Your task to perform on an android device: visit the assistant section in the google photos Image 0: 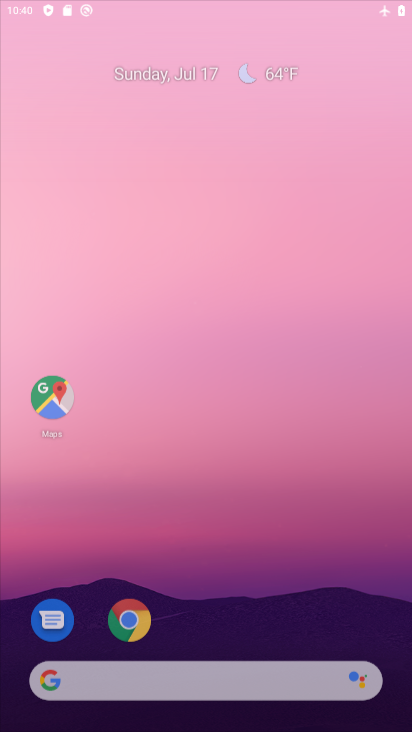
Step 0: click (376, 74)
Your task to perform on an android device: visit the assistant section in the google photos Image 1: 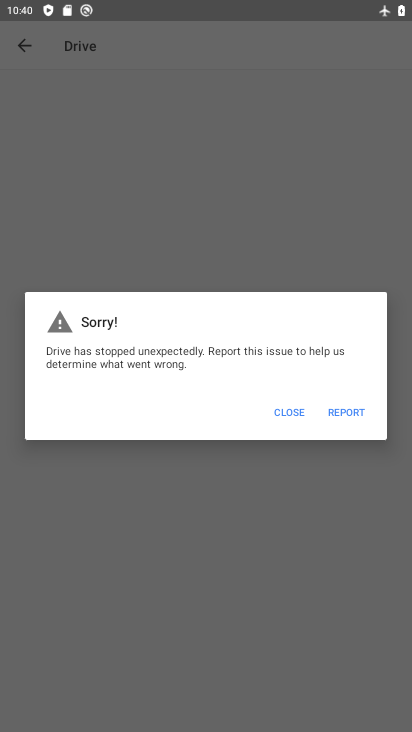
Step 1: press home button
Your task to perform on an android device: visit the assistant section in the google photos Image 2: 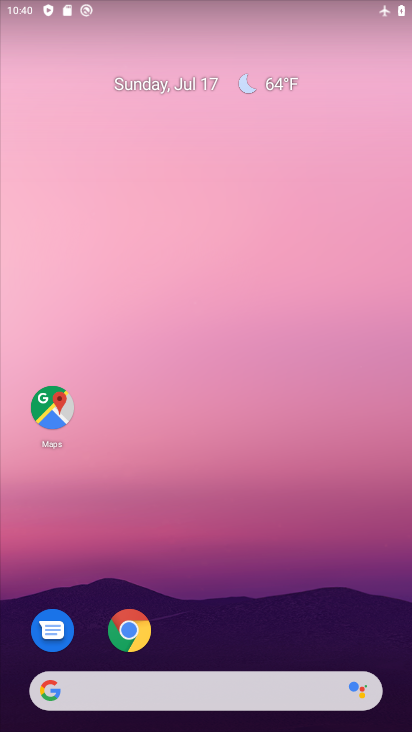
Step 2: drag from (386, 619) to (325, 48)
Your task to perform on an android device: visit the assistant section in the google photos Image 3: 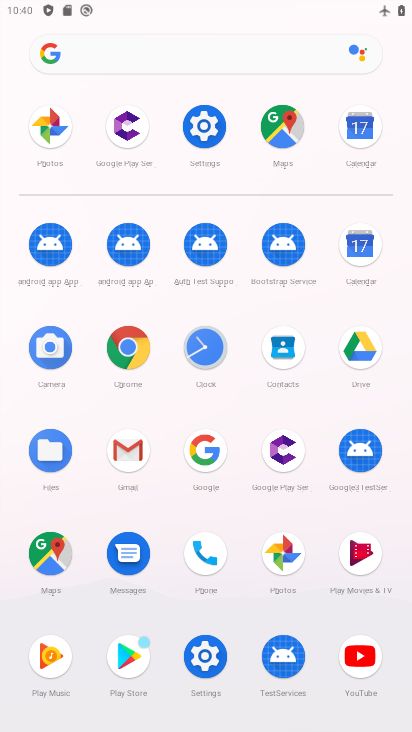
Step 3: click (284, 551)
Your task to perform on an android device: visit the assistant section in the google photos Image 4: 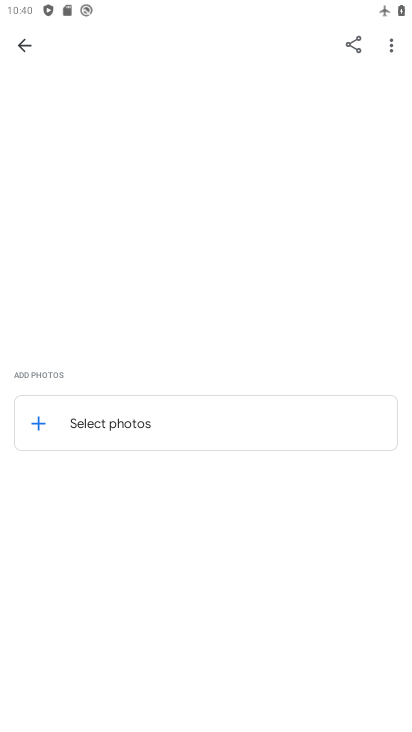
Step 4: task complete